Your task to perform on an android device: install app "Google Calendar" Image 0: 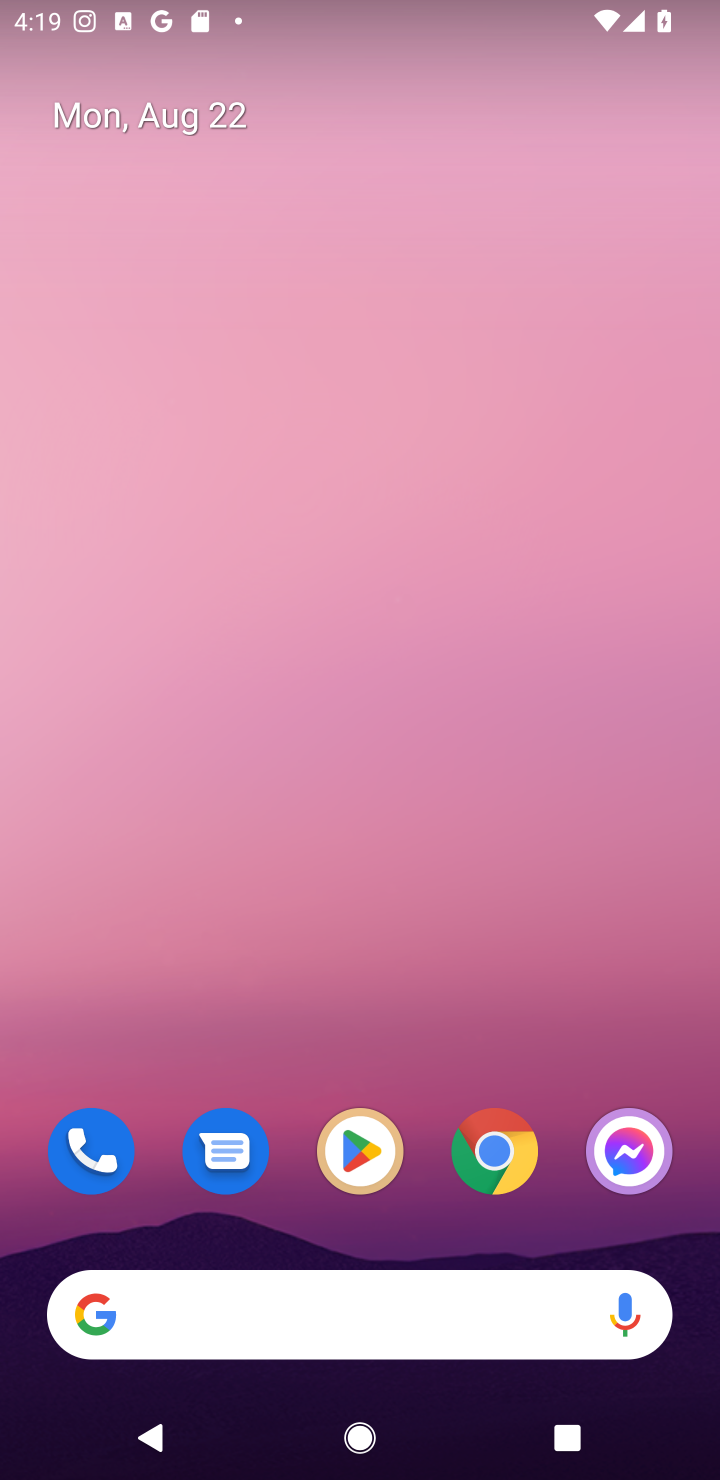
Step 0: click (364, 1144)
Your task to perform on an android device: install app "Google Calendar" Image 1: 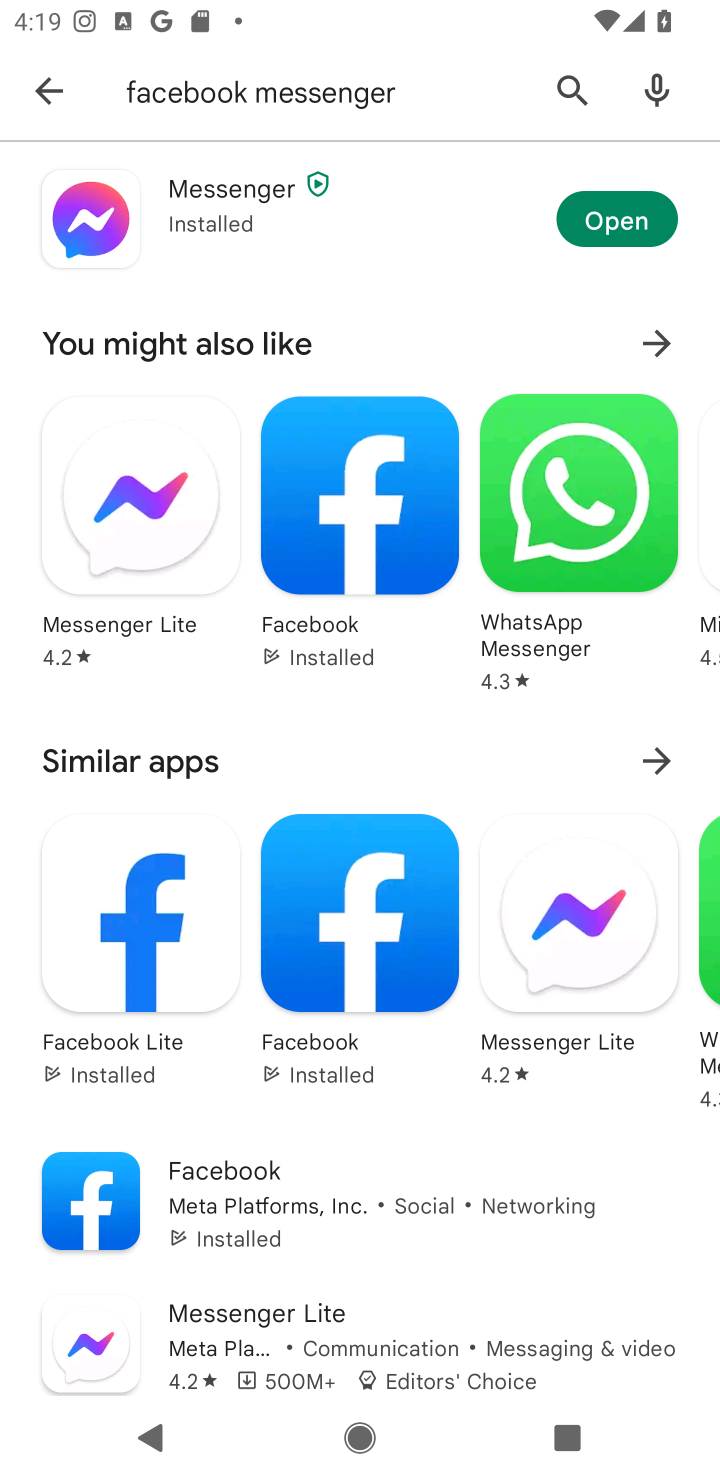
Step 1: click (562, 83)
Your task to perform on an android device: install app "Google Calendar" Image 2: 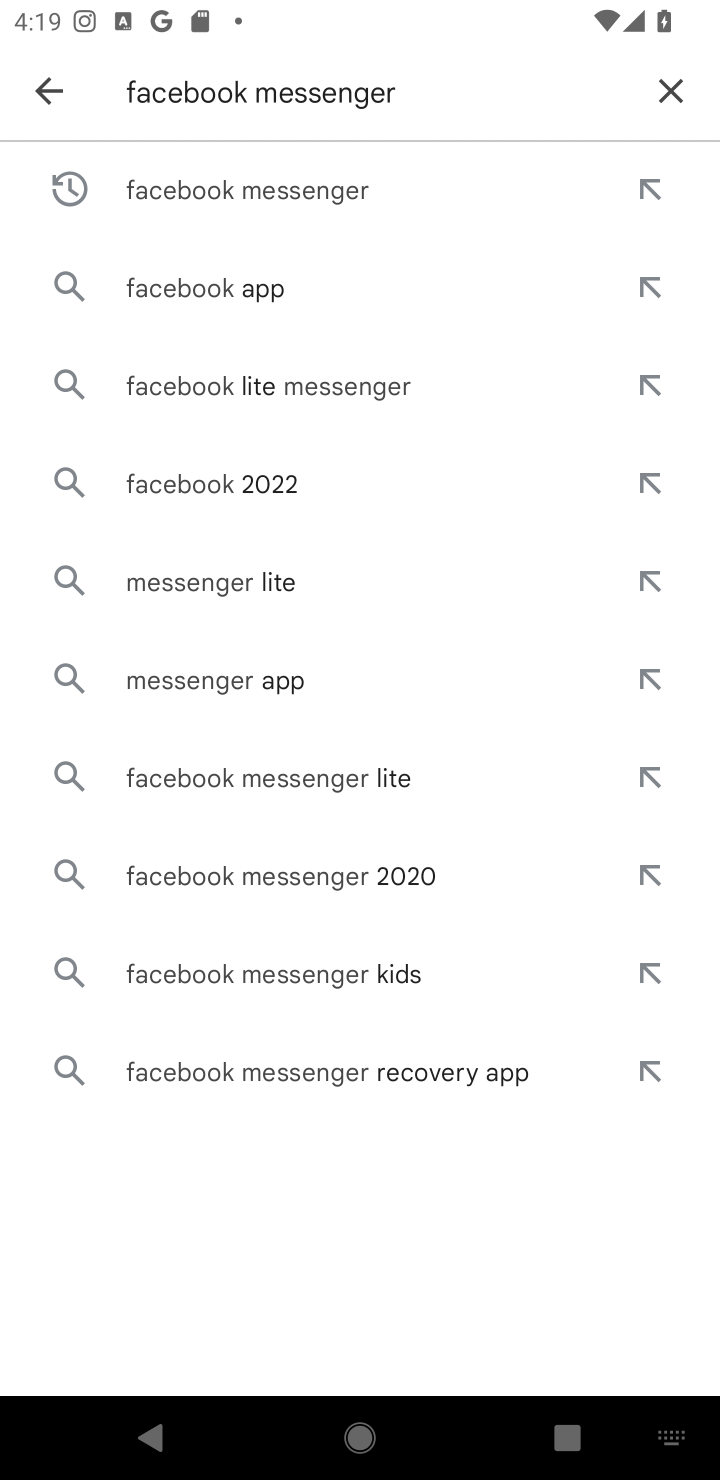
Step 2: click (678, 86)
Your task to perform on an android device: install app "Google Calendar" Image 3: 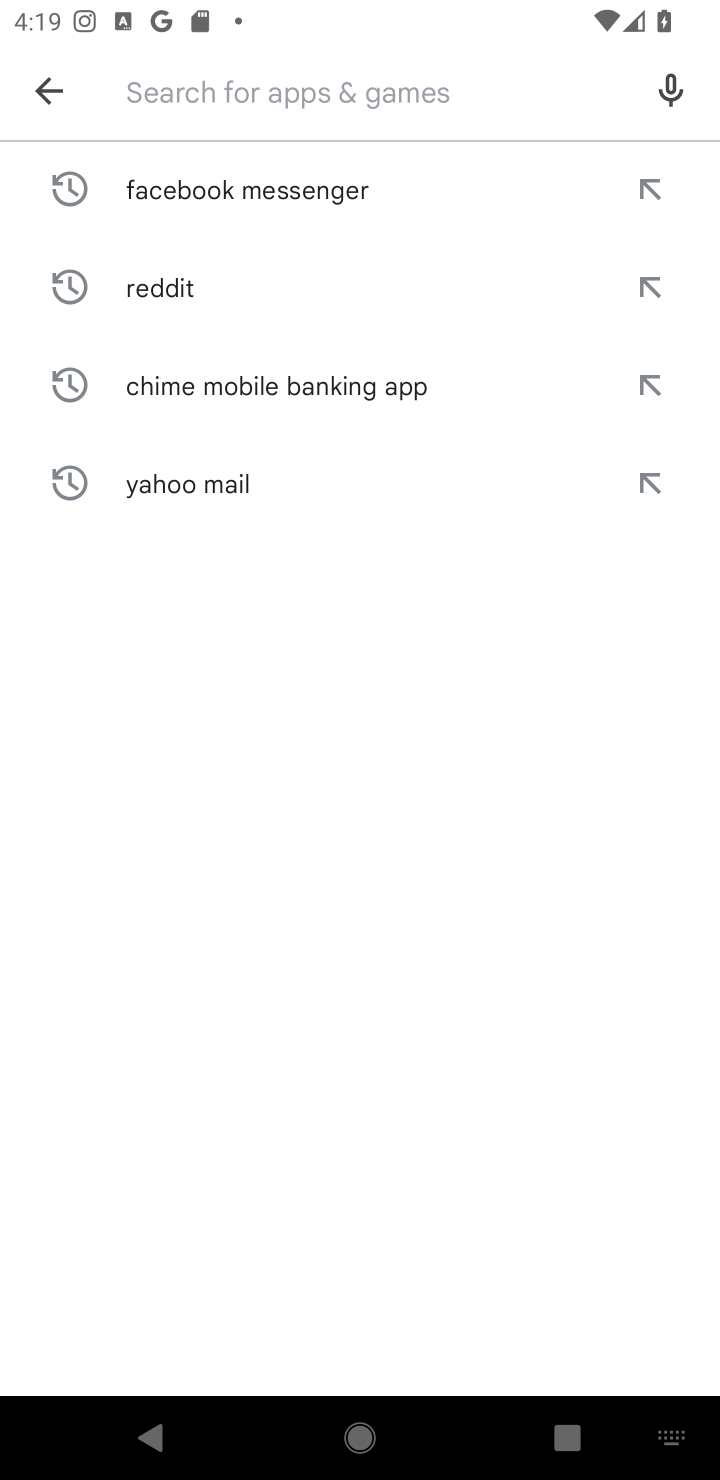
Step 3: type "Google Calendar"
Your task to perform on an android device: install app "Google Calendar" Image 4: 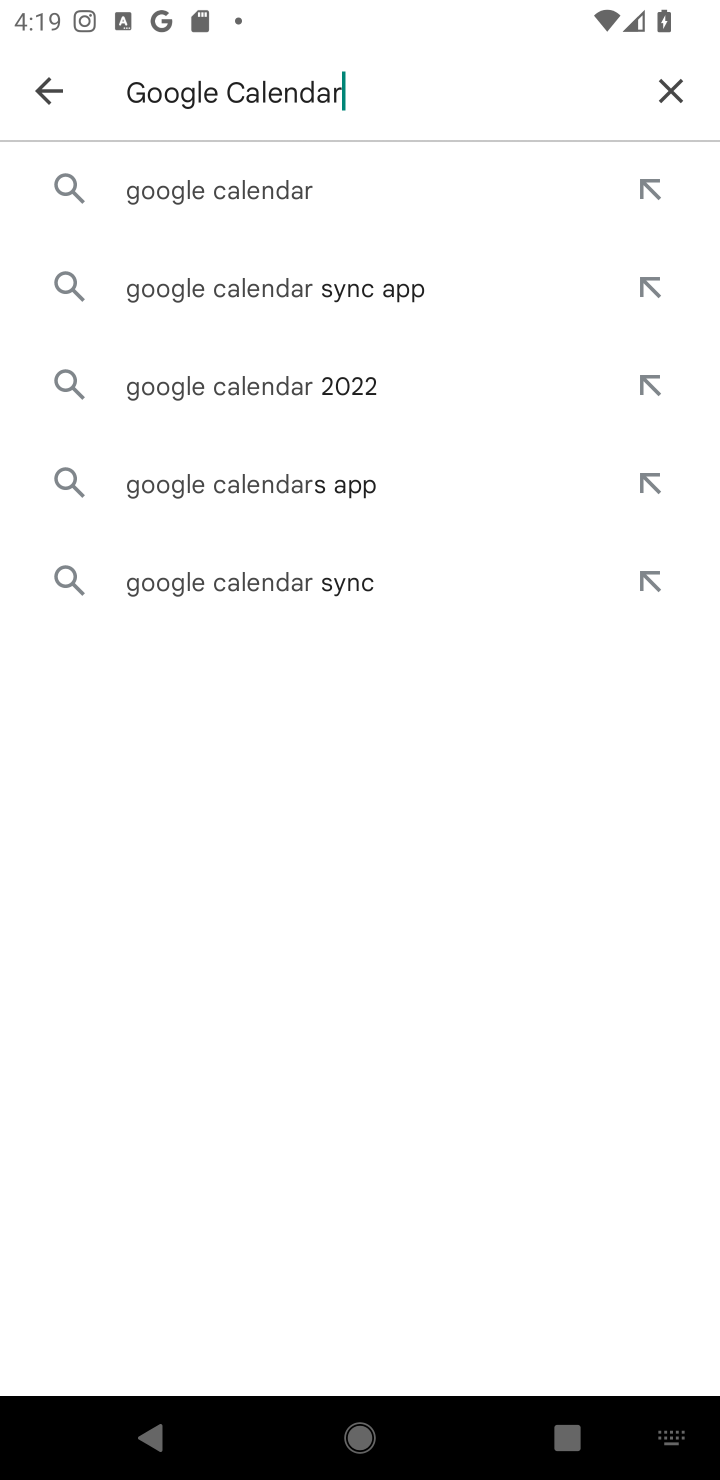
Step 4: click (279, 187)
Your task to perform on an android device: install app "Google Calendar" Image 5: 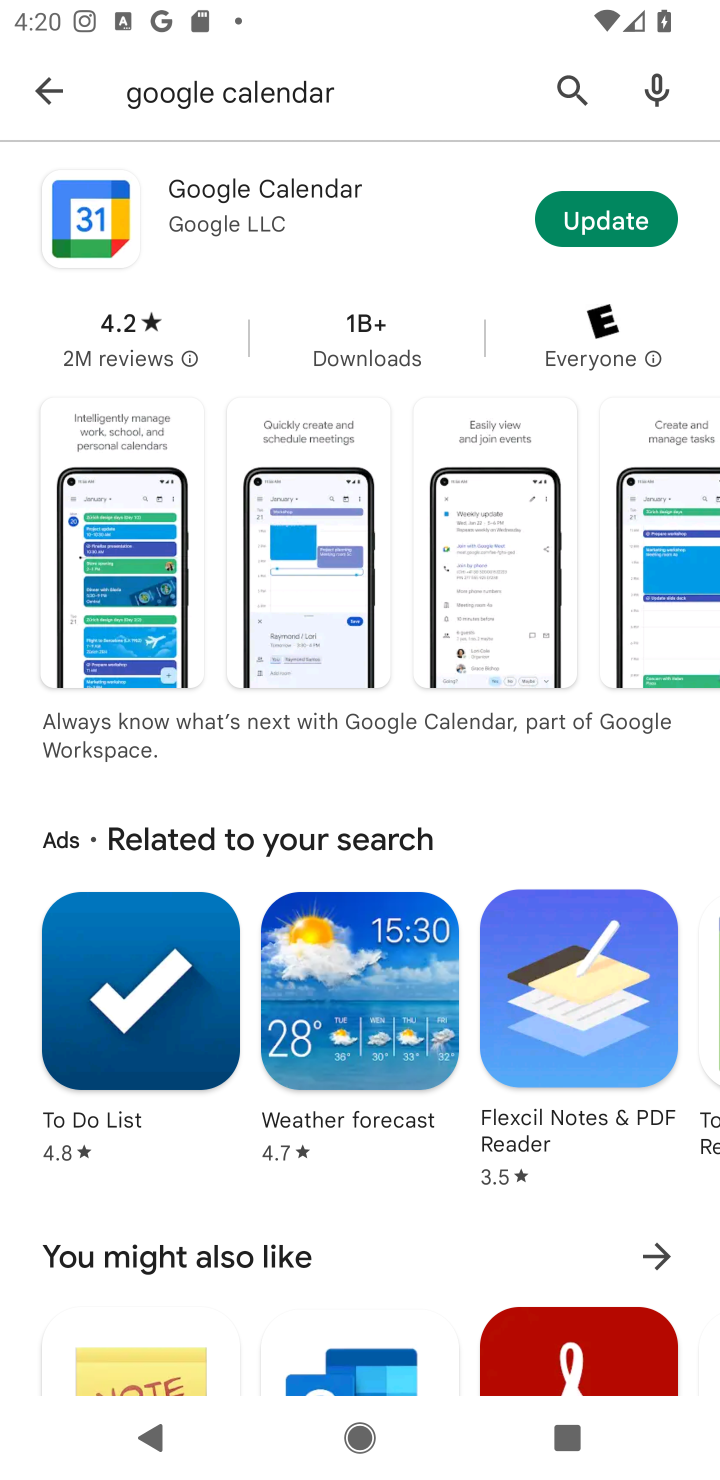
Step 5: task complete